Your task to perform on an android device: set an alarm Image 0: 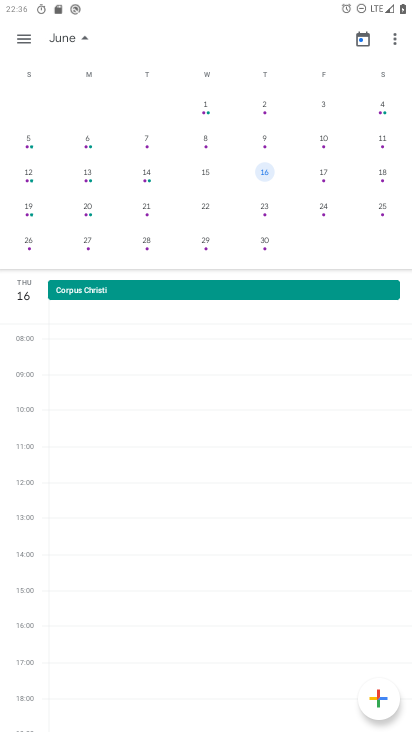
Step 0: click (299, 503)
Your task to perform on an android device: set an alarm Image 1: 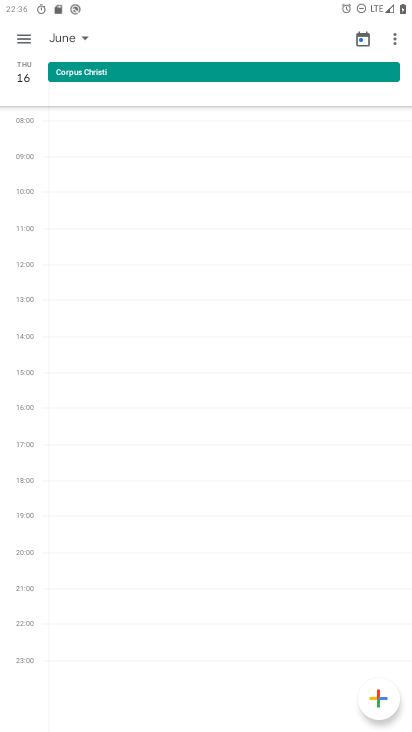
Step 1: drag from (140, 263) to (248, 516)
Your task to perform on an android device: set an alarm Image 2: 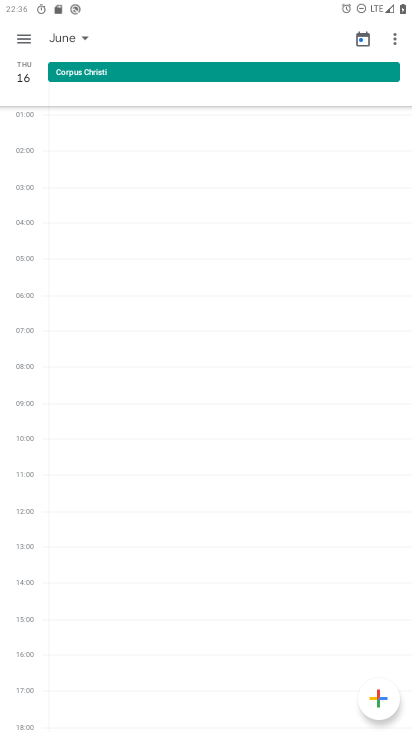
Step 2: press home button
Your task to perform on an android device: set an alarm Image 3: 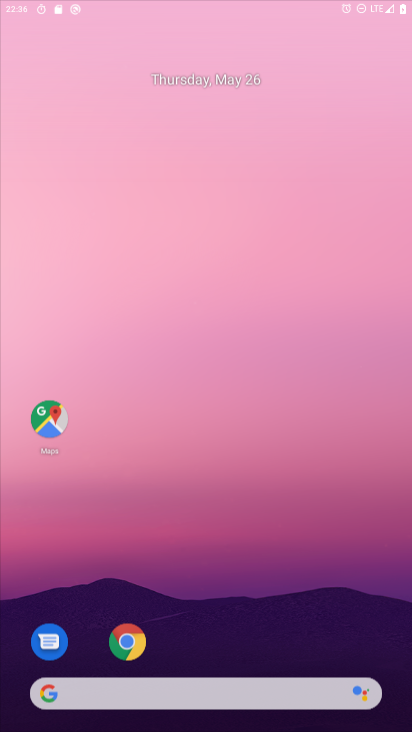
Step 3: press home button
Your task to perform on an android device: set an alarm Image 4: 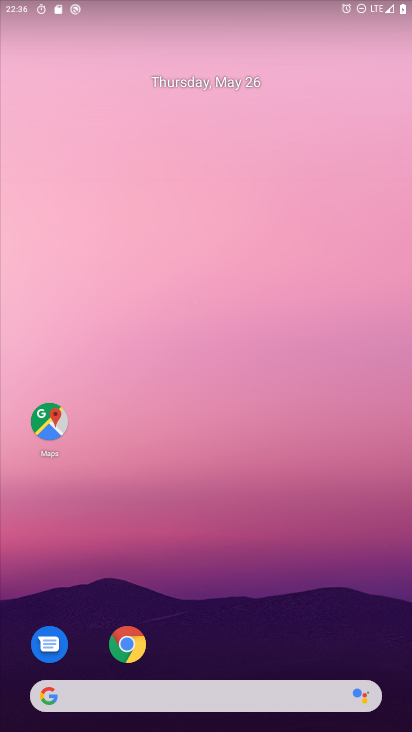
Step 4: drag from (214, 613) to (236, 74)
Your task to perform on an android device: set an alarm Image 5: 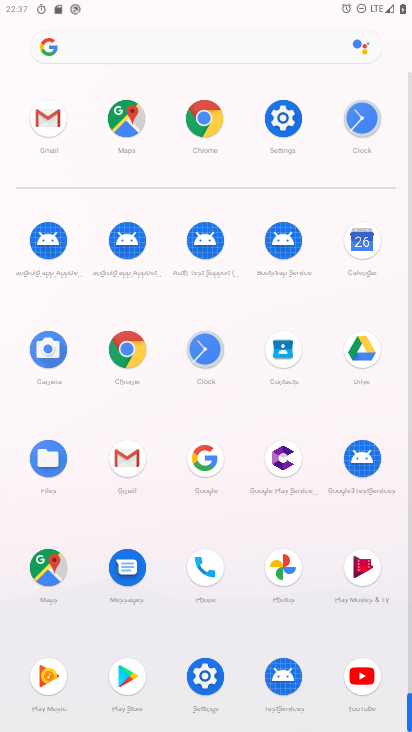
Step 5: click (193, 357)
Your task to perform on an android device: set an alarm Image 6: 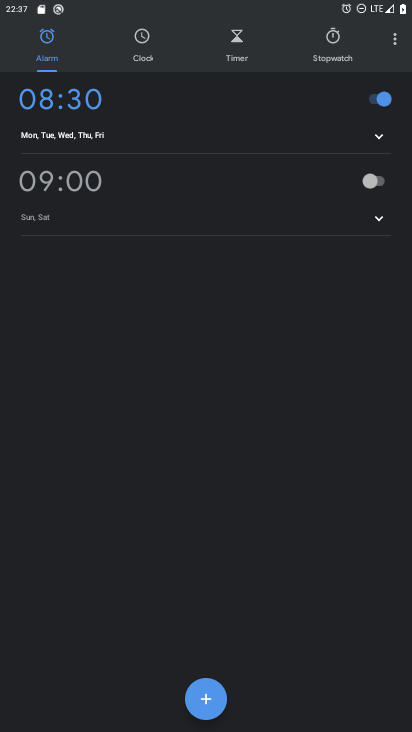
Step 6: click (367, 171)
Your task to perform on an android device: set an alarm Image 7: 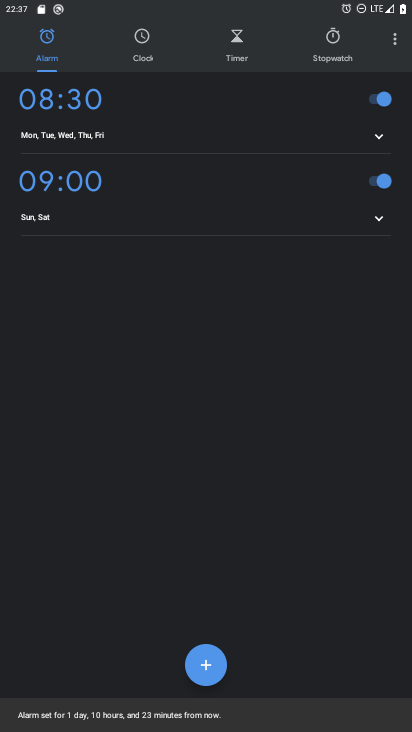
Step 7: task complete